Your task to perform on an android device: Go to ESPN.com Image 0: 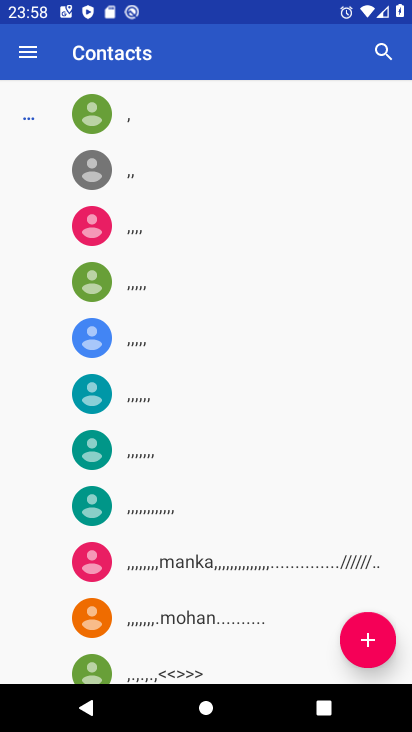
Step 0: press home button
Your task to perform on an android device: Go to ESPN.com Image 1: 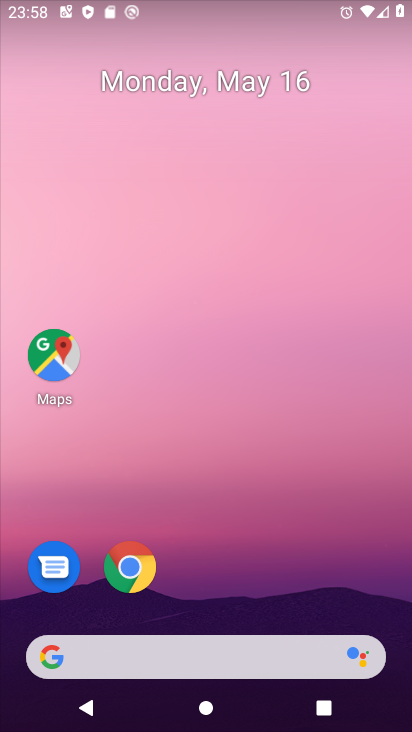
Step 1: click (132, 572)
Your task to perform on an android device: Go to ESPN.com Image 2: 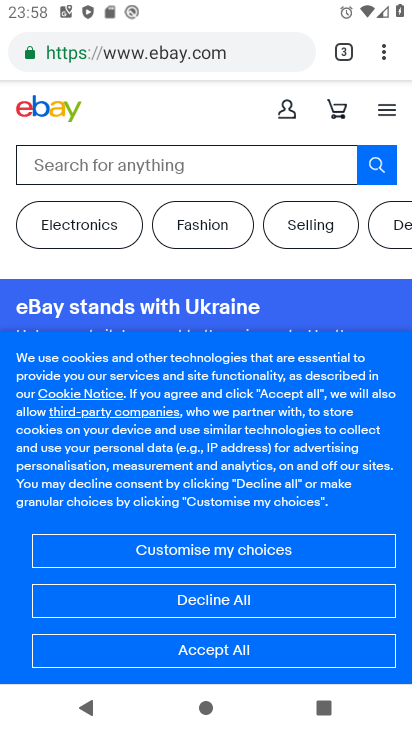
Step 2: click (380, 49)
Your task to perform on an android device: Go to ESPN.com Image 3: 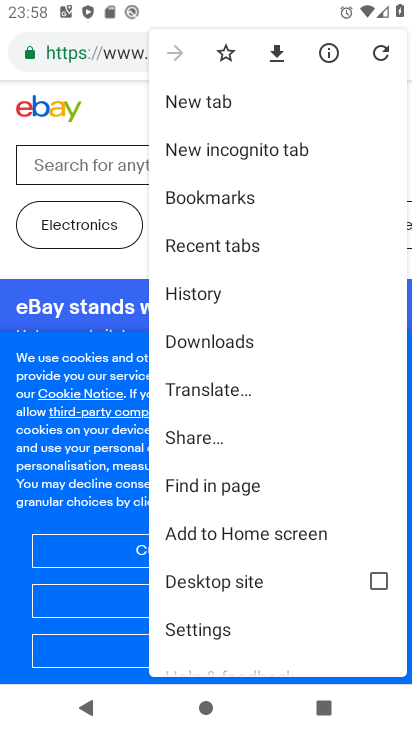
Step 3: click (215, 97)
Your task to perform on an android device: Go to ESPN.com Image 4: 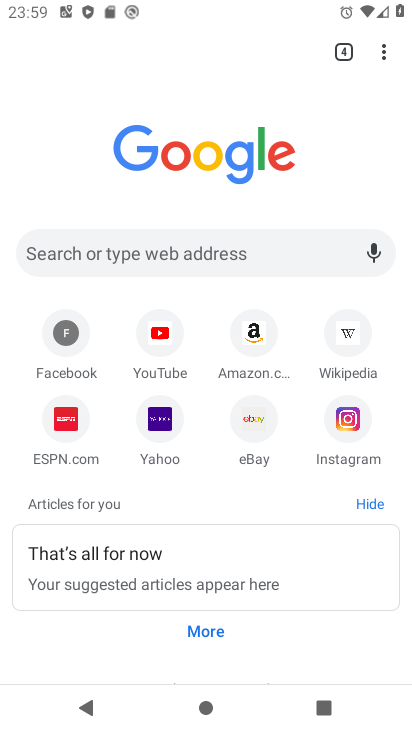
Step 4: click (62, 426)
Your task to perform on an android device: Go to ESPN.com Image 5: 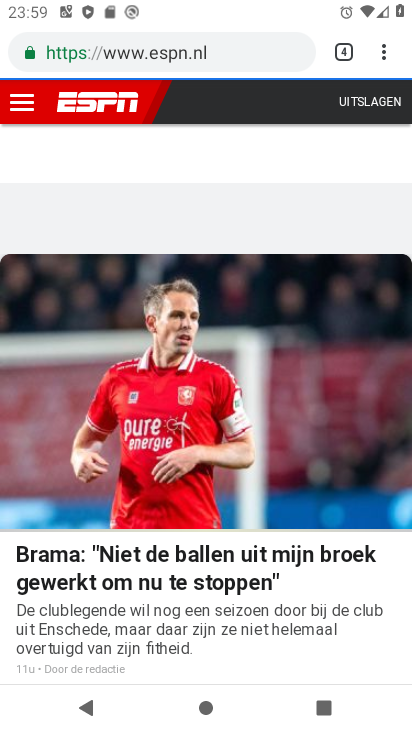
Step 5: task complete